Your task to perform on an android device: turn on translation in the chrome app Image 0: 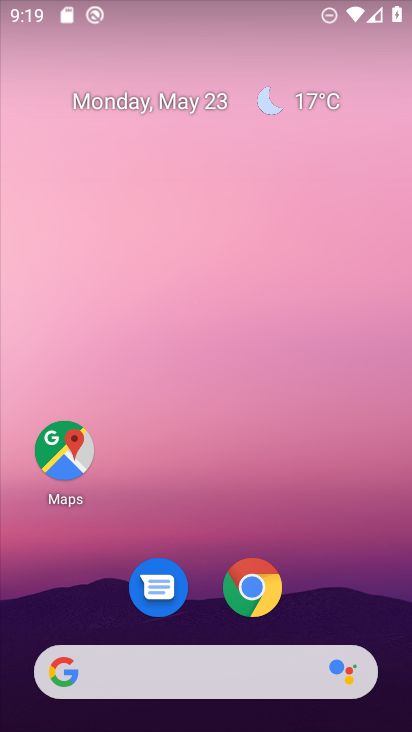
Step 0: click (248, 583)
Your task to perform on an android device: turn on translation in the chrome app Image 1: 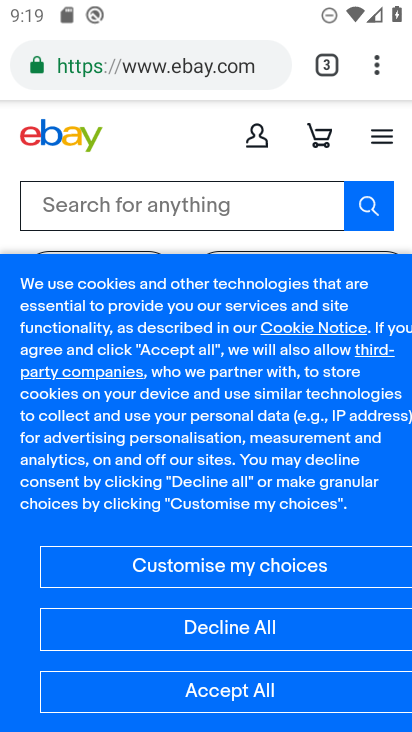
Step 1: drag from (381, 64) to (143, 631)
Your task to perform on an android device: turn on translation in the chrome app Image 2: 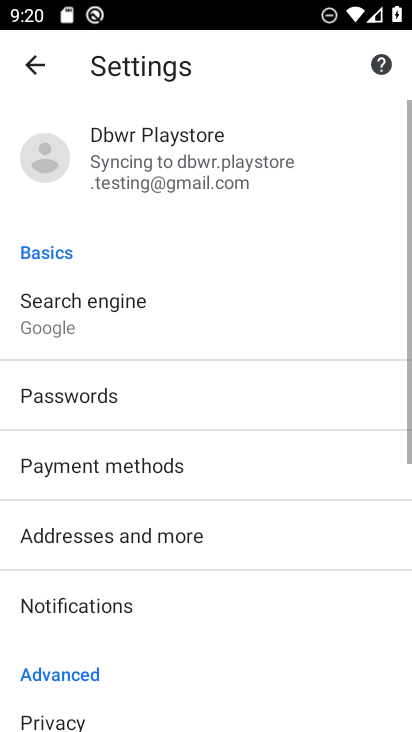
Step 2: drag from (106, 671) to (265, 49)
Your task to perform on an android device: turn on translation in the chrome app Image 3: 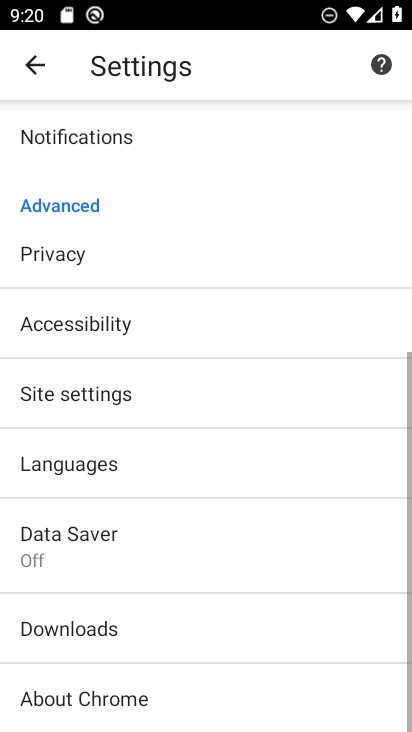
Step 3: click (77, 455)
Your task to perform on an android device: turn on translation in the chrome app Image 4: 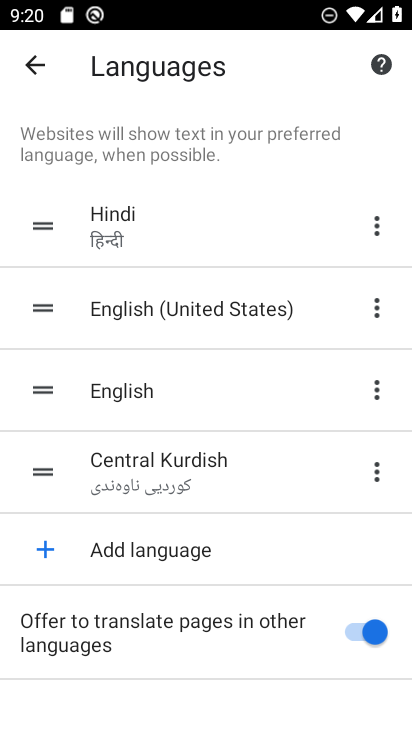
Step 4: task complete